Your task to perform on an android device: Go to calendar. Show me events next week Image 0: 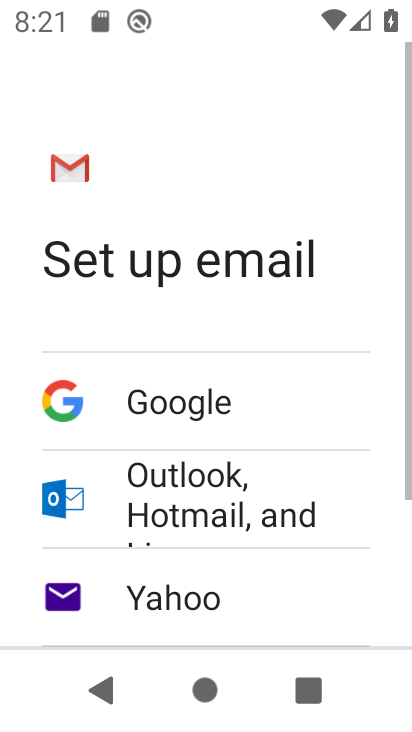
Step 0: press home button
Your task to perform on an android device: Go to calendar. Show me events next week Image 1: 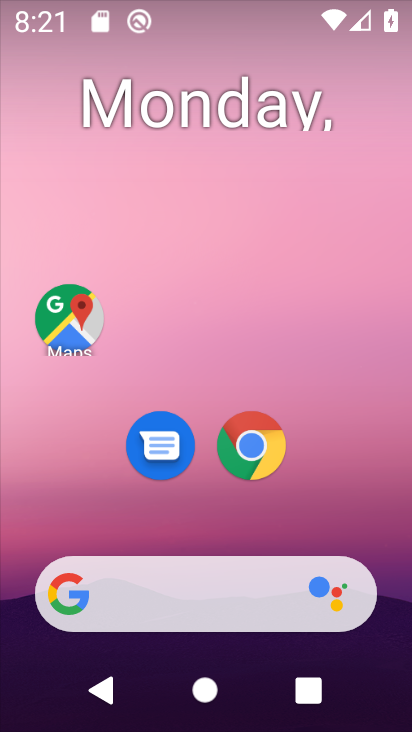
Step 1: drag from (204, 511) to (214, 1)
Your task to perform on an android device: Go to calendar. Show me events next week Image 2: 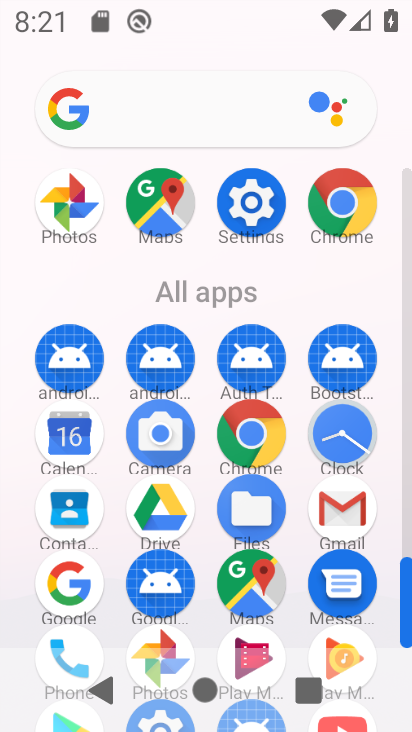
Step 2: click (70, 426)
Your task to perform on an android device: Go to calendar. Show me events next week Image 3: 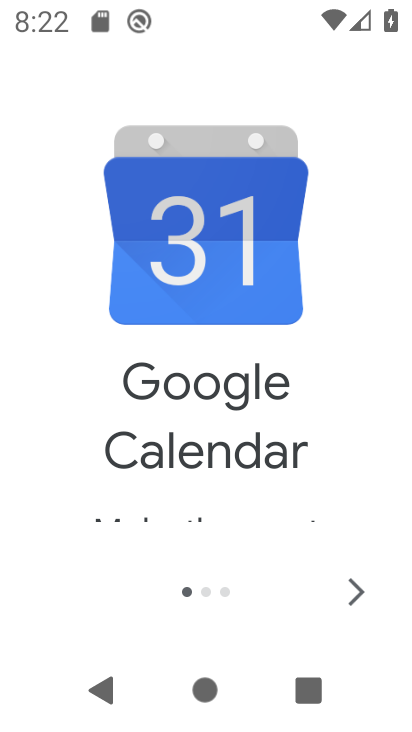
Step 3: click (349, 594)
Your task to perform on an android device: Go to calendar. Show me events next week Image 4: 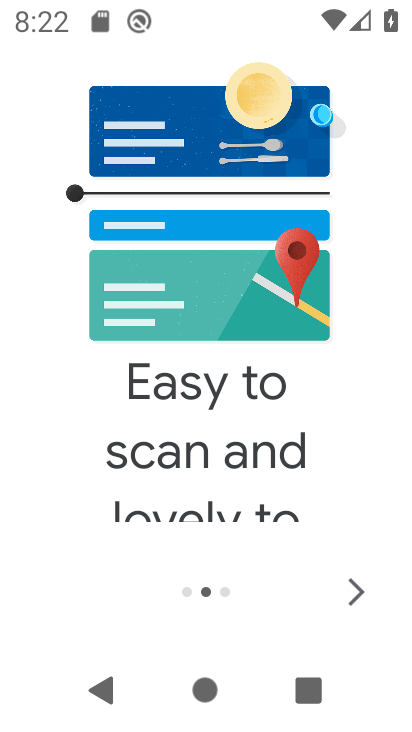
Step 4: click (358, 593)
Your task to perform on an android device: Go to calendar. Show me events next week Image 5: 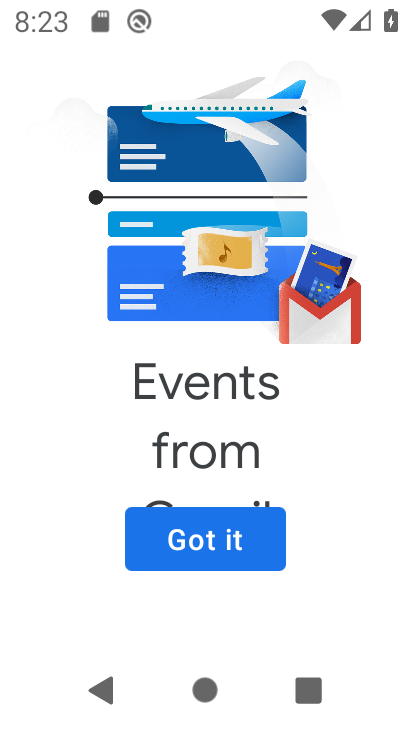
Step 5: click (203, 538)
Your task to perform on an android device: Go to calendar. Show me events next week Image 6: 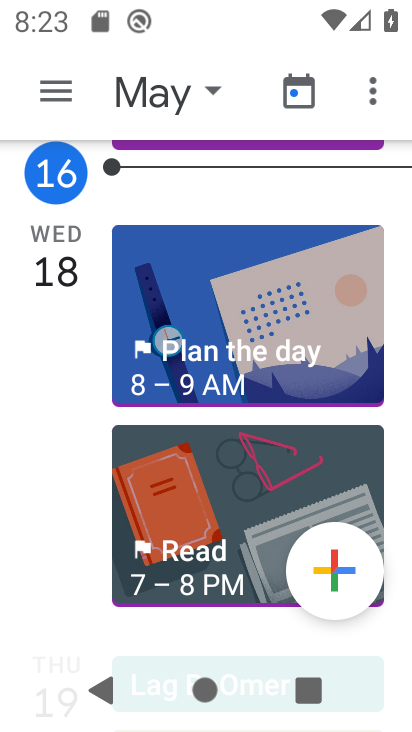
Step 6: task complete